Your task to perform on an android device: add a contact in the contacts app Image 0: 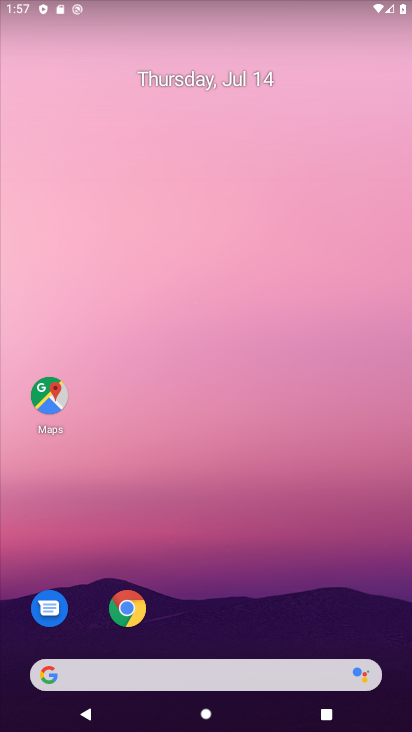
Step 0: drag from (261, 439) to (319, 32)
Your task to perform on an android device: add a contact in the contacts app Image 1: 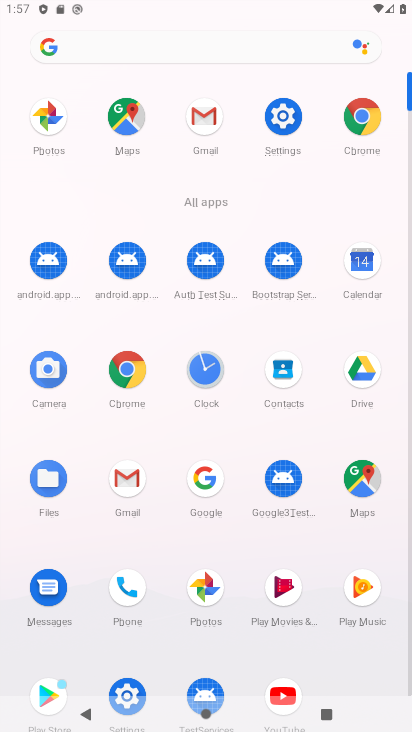
Step 1: click (291, 373)
Your task to perform on an android device: add a contact in the contacts app Image 2: 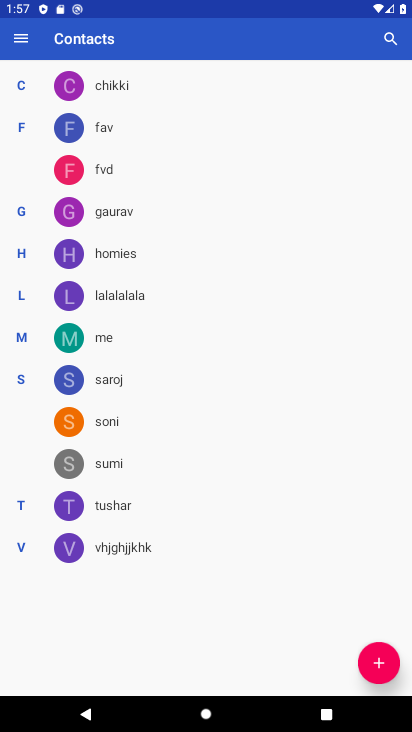
Step 2: click (367, 660)
Your task to perform on an android device: add a contact in the contacts app Image 3: 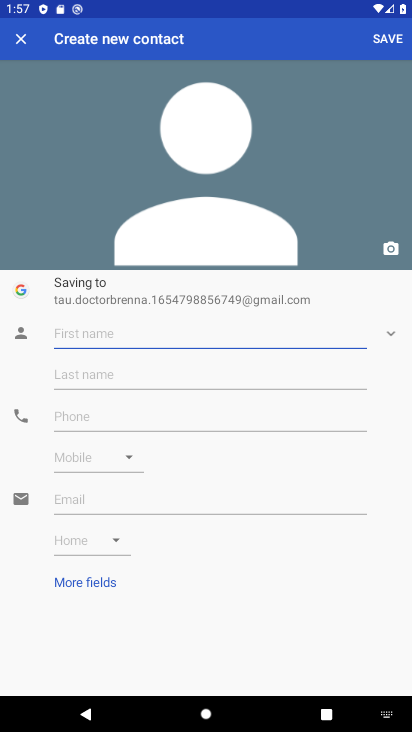
Step 3: click (69, 330)
Your task to perform on an android device: add a contact in the contacts app Image 4: 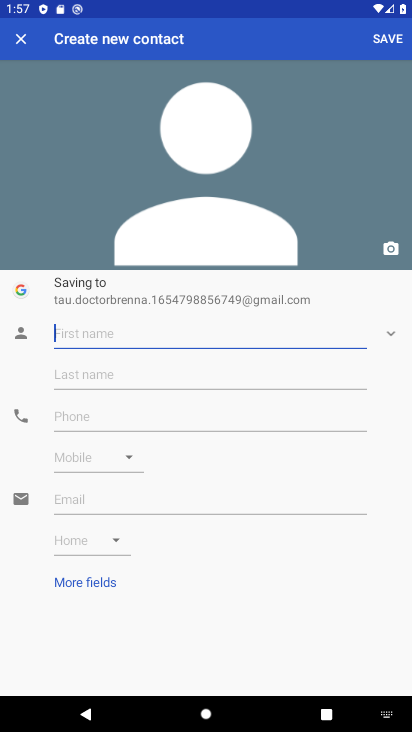
Step 4: type "bgng"
Your task to perform on an android device: add a contact in the contacts app Image 5: 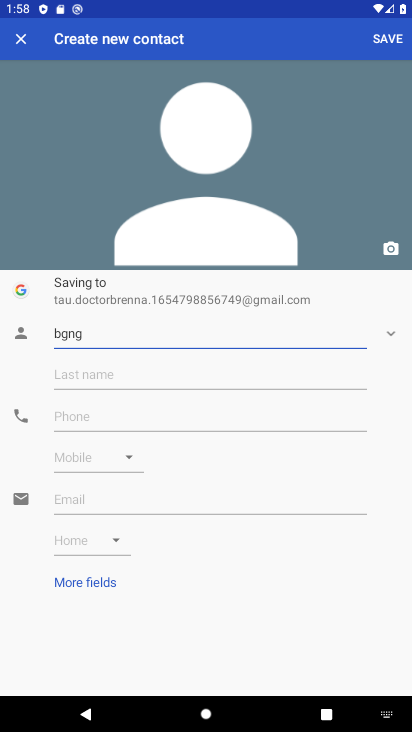
Step 5: click (79, 418)
Your task to perform on an android device: add a contact in the contacts app Image 6: 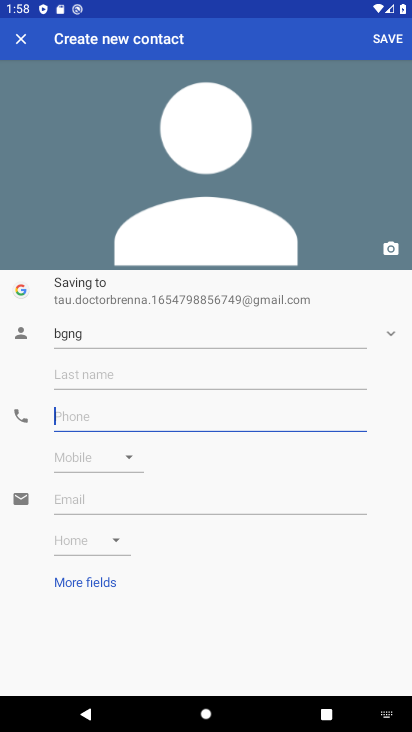
Step 6: type "78787"
Your task to perform on an android device: add a contact in the contacts app Image 7: 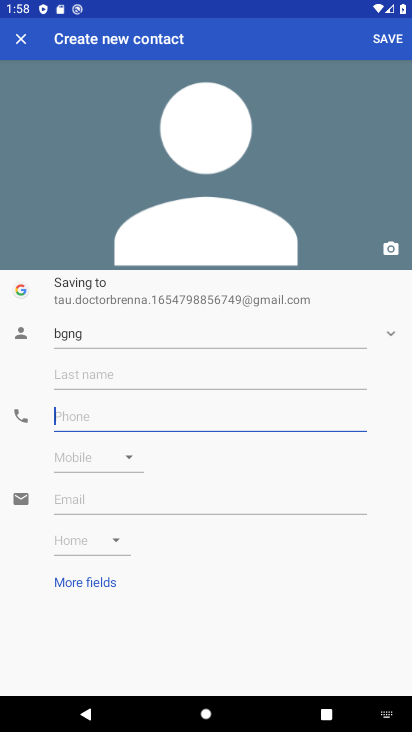
Step 7: click (383, 36)
Your task to perform on an android device: add a contact in the contacts app Image 8: 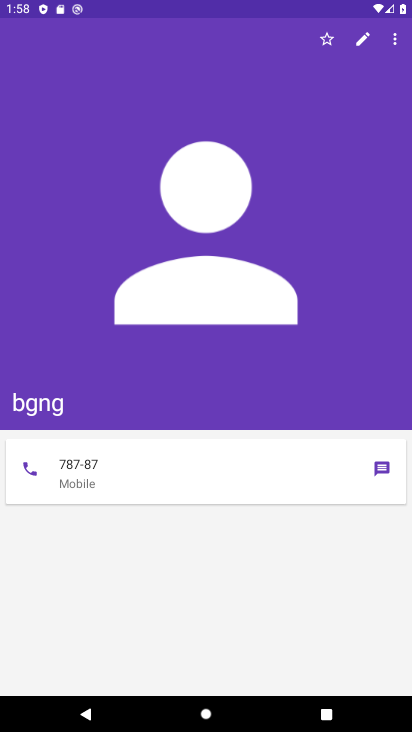
Step 8: task complete